Your task to perform on an android device: Open the map Image 0: 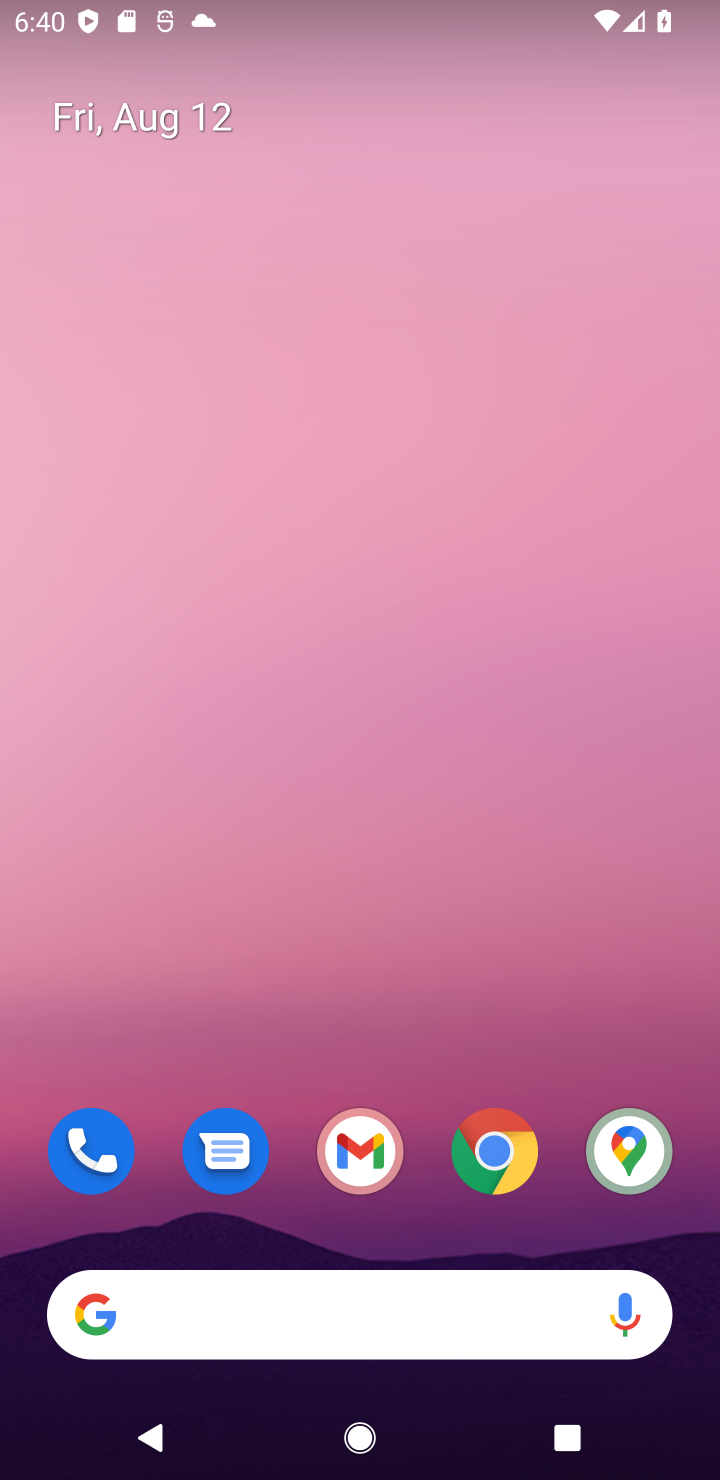
Step 0: drag from (478, 976) to (500, 10)
Your task to perform on an android device: Open the map Image 1: 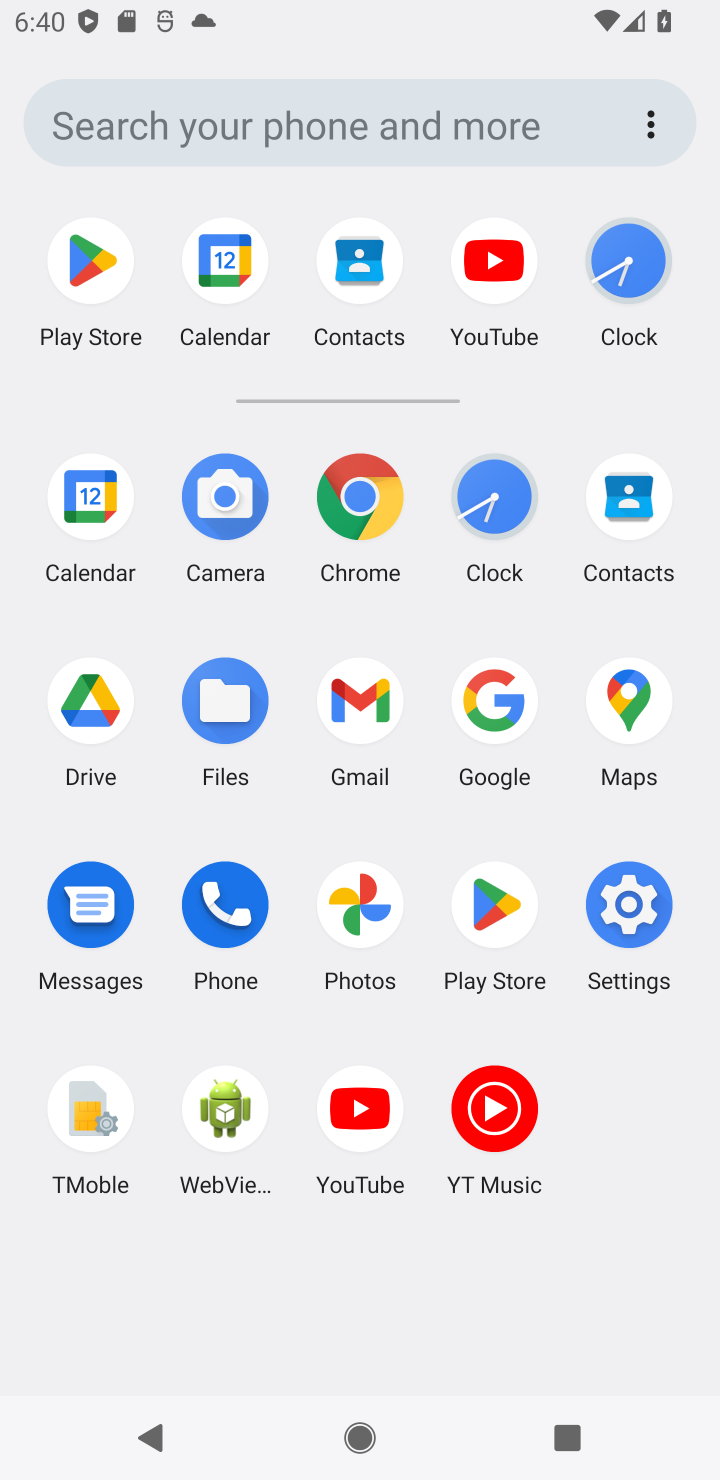
Step 1: click (647, 676)
Your task to perform on an android device: Open the map Image 2: 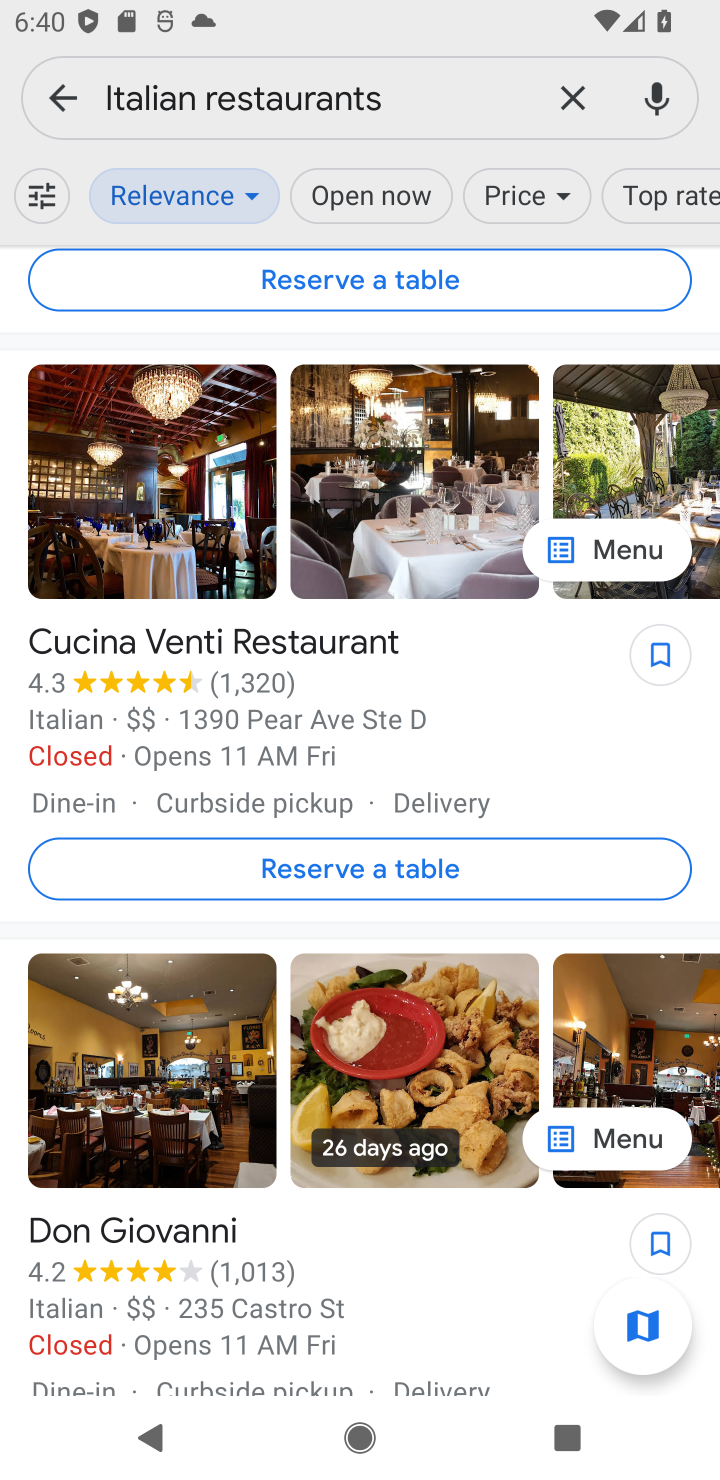
Step 2: task complete